Your task to perform on an android device: Go to sound settings Image 0: 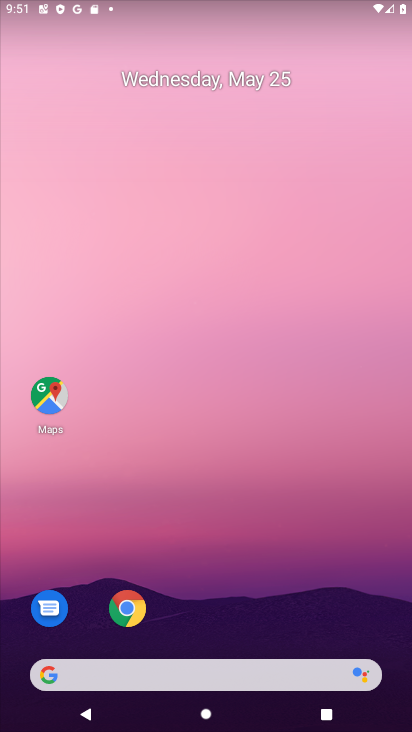
Step 0: press home button
Your task to perform on an android device: Go to sound settings Image 1: 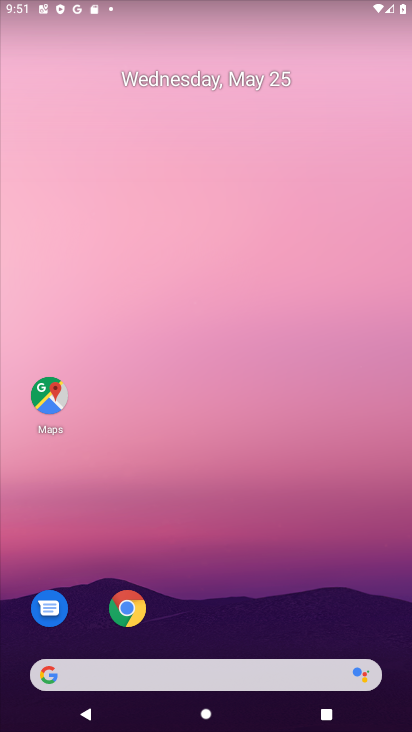
Step 1: drag from (249, 579) to (262, 0)
Your task to perform on an android device: Go to sound settings Image 2: 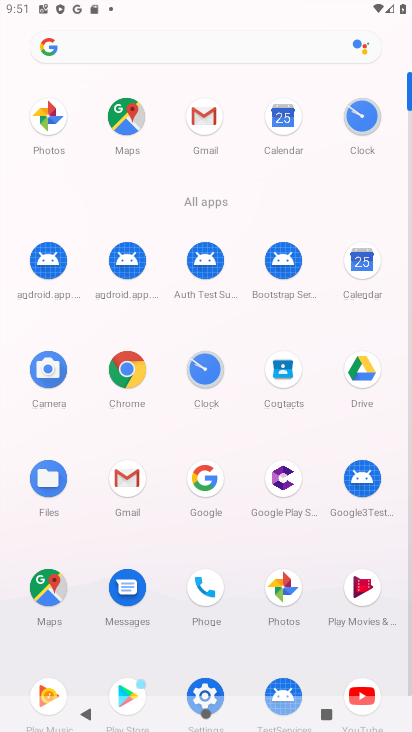
Step 2: click (408, 480)
Your task to perform on an android device: Go to sound settings Image 3: 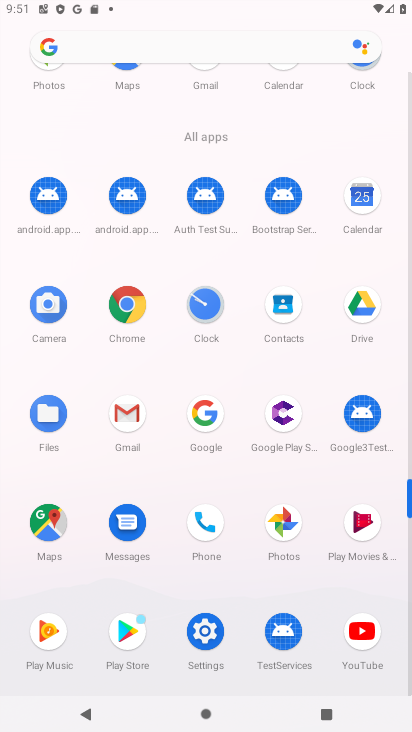
Step 3: click (203, 630)
Your task to perform on an android device: Go to sound settings Image 4: 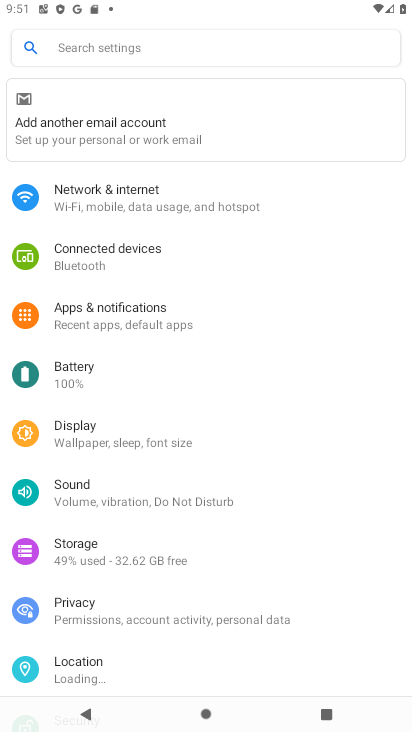
Step 4: click (74, 501)
Your task to perform on an android device: Go to sound settings Image 5: 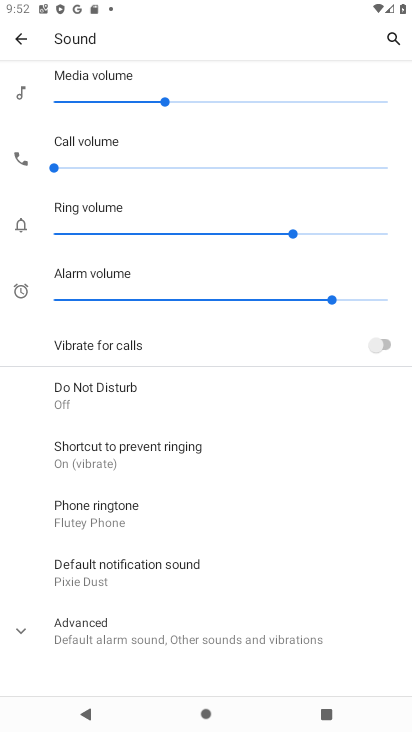
Step 5: task complete